Your task to perform on an android device: toggle javascript in the chrome app Image 0: 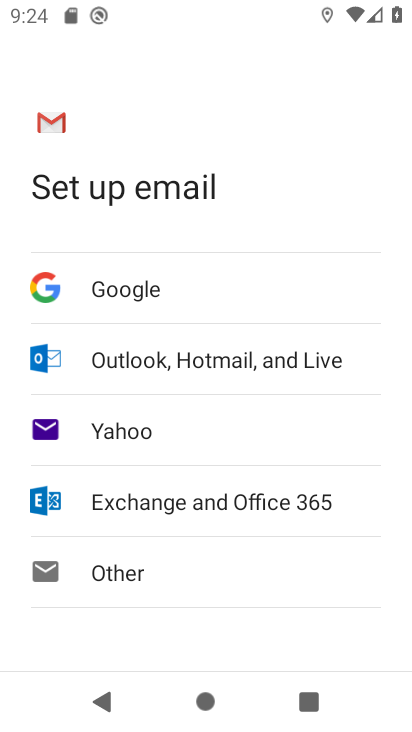
Step 0: press home button
Your task to perform on an android device: toggle javascript in the chrome app Image 1: 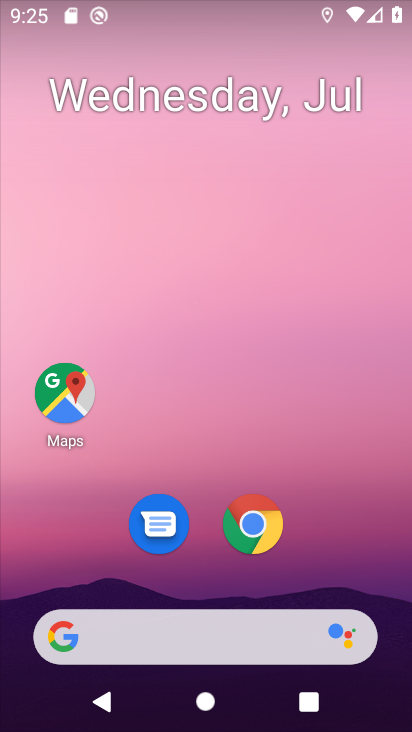
Step 1: click (255, 522)
Your task to perform on an android device: toggle javascript in the chrome app Image 2: 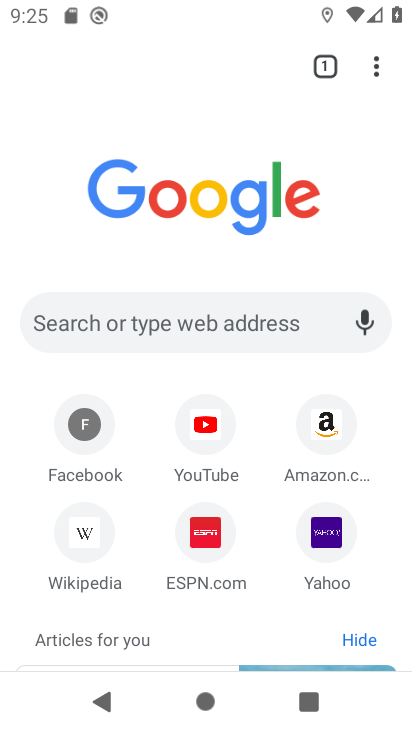
Step 2: click (375, 77)
Your task to perform on an android device: toggle javascript in the chrome app Image 3: 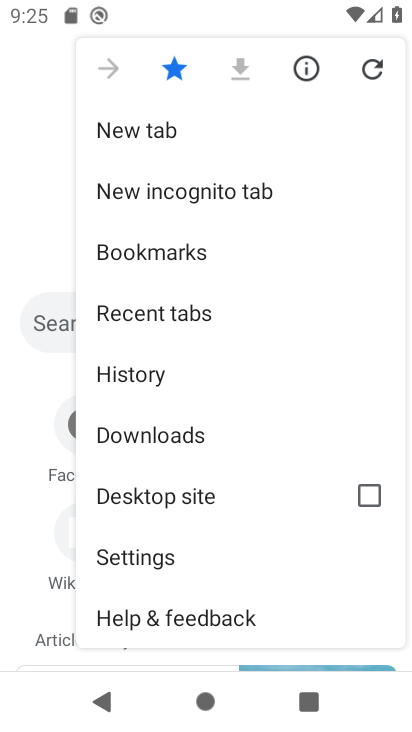
Step 3: click (177, 552)
Your task to perform on an android device: toggle javascript in the chrome app Image 4: 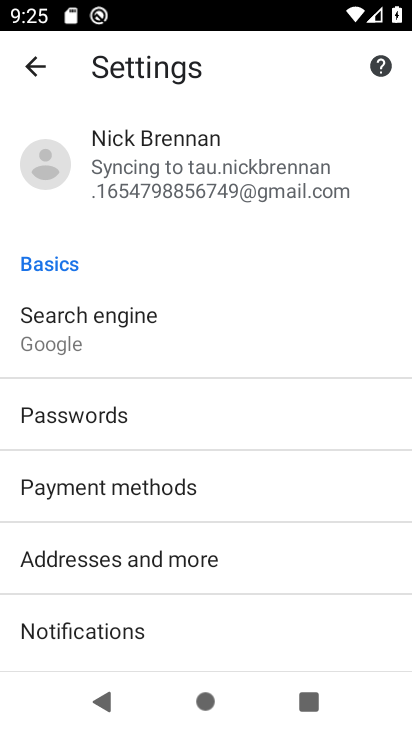
Step 4: drag from (253, 611) to (242, 181)
Your task to perform on an android device: toggle javascript in the chrome app Image 5: 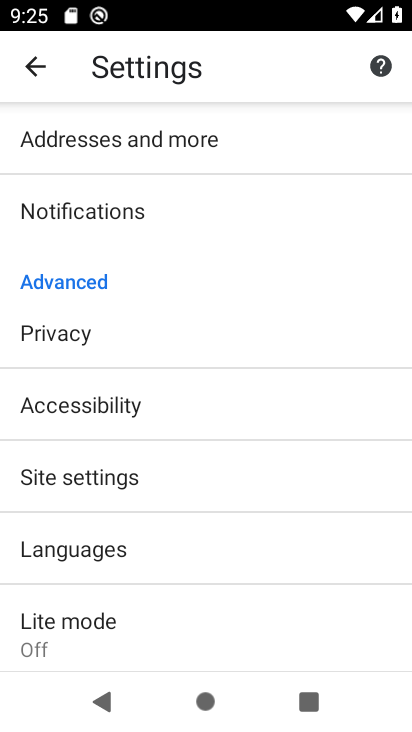
Step 5: click (136, 461)
Your task to perform on an android device: toggle javascript in the chrome app Image 6: 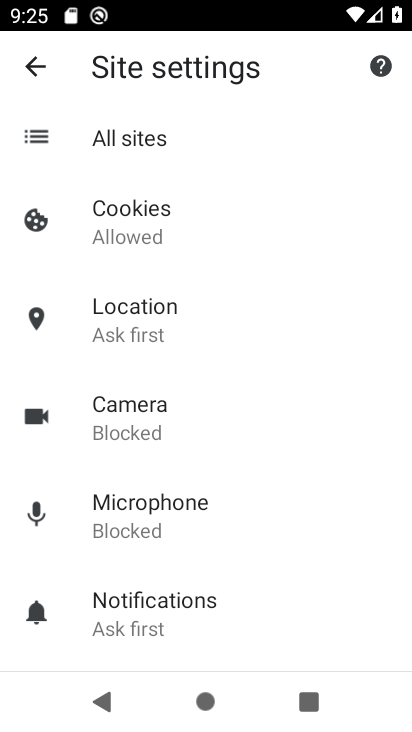
Step 6: drag from (239, 534) to (254, 217)
Your task to perform on an android device: toggle javascript in the chrome app Image 7: 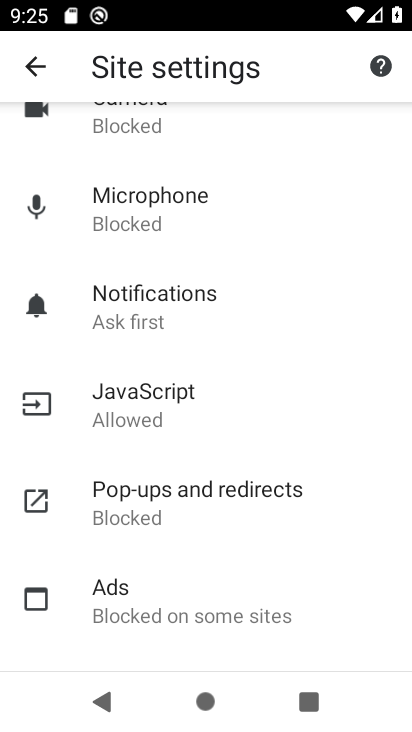
Step 7: click (197, 387)
Your task to perform on an android device: toggle javascript in the chrome app Image 8: 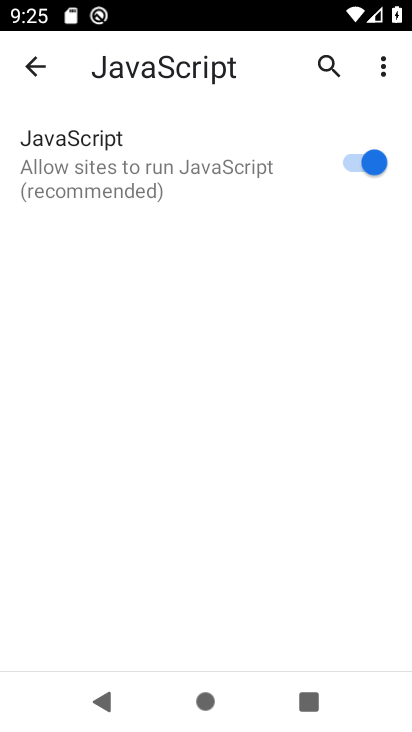
Step 8: click (364, 145)
Your task to perform on an android device: toggle javascript in the chrome app Image 9: 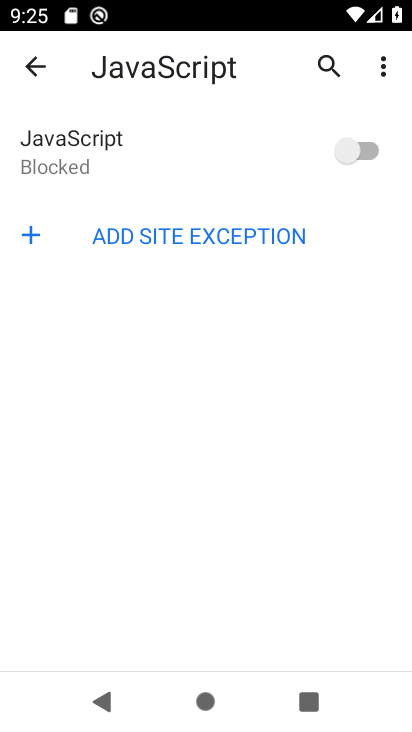
Step 9: task complete